Your task to perform on an android device: toggle improve location accuracy Image 0: 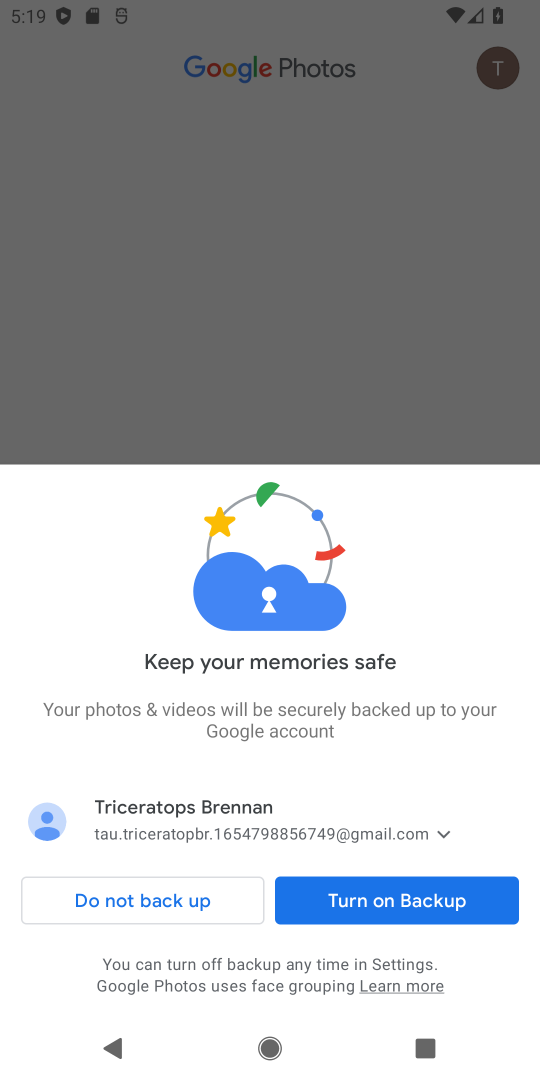
Step 0: press home button
Your task to perform on an android device: toggle improve location accuracy Image 1: 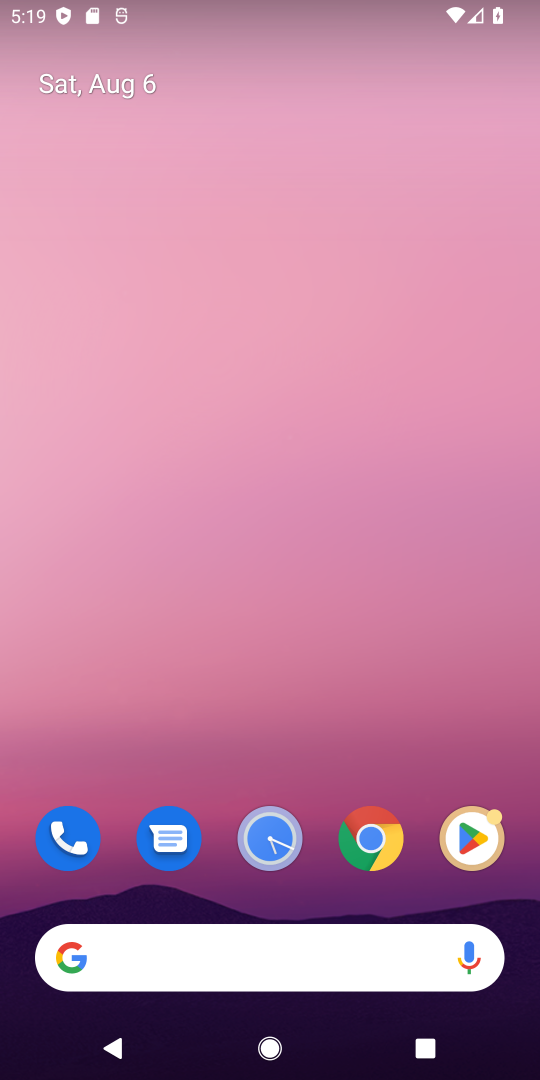
Step 1: drag from (219, 871) to (176, 49)
Your task to perform on an android device: toggle improve location accuracy Image 2: 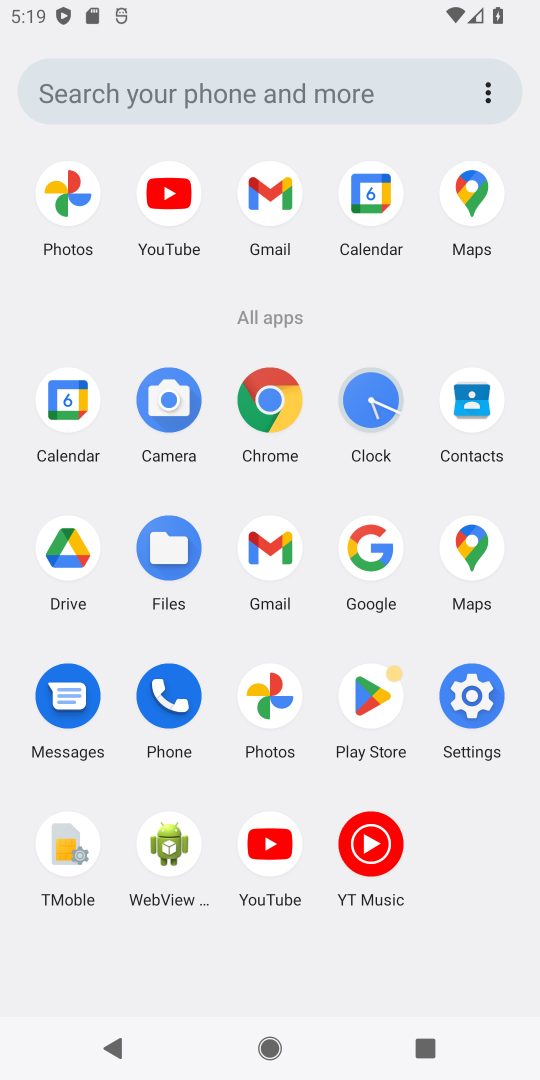
Step 2: click (474, 718)
Your task to perform on an android device: toggle improve location accuracy Image 3: 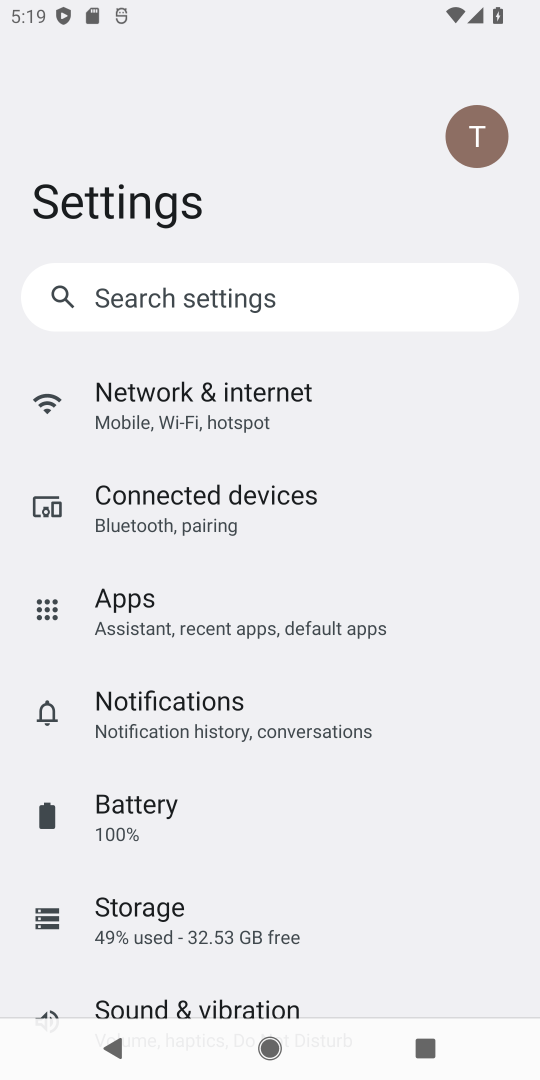
Step 3: drag from (208, 868) to (268, 517)
Your task to perform on an android device: toggle improve location accuracy Image 4: 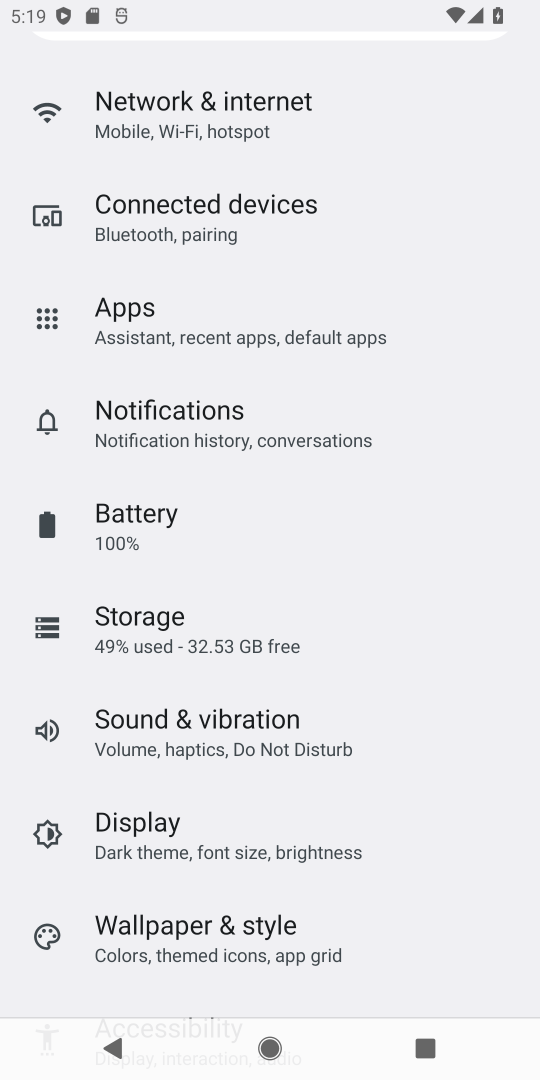
Step 4: drag from (211, 812) to (266, 374)
Your task to perform on an android device: toggle improve location accuracy Image 5: 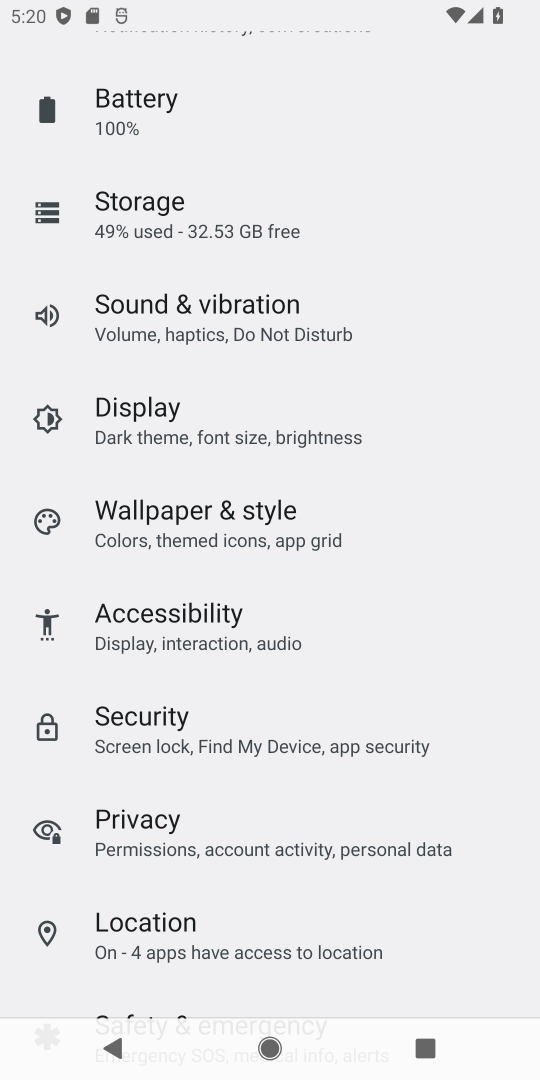
Step 5: click (142, 930)
Your task to perform on an android device: toggle improve location accuracy Image 6: 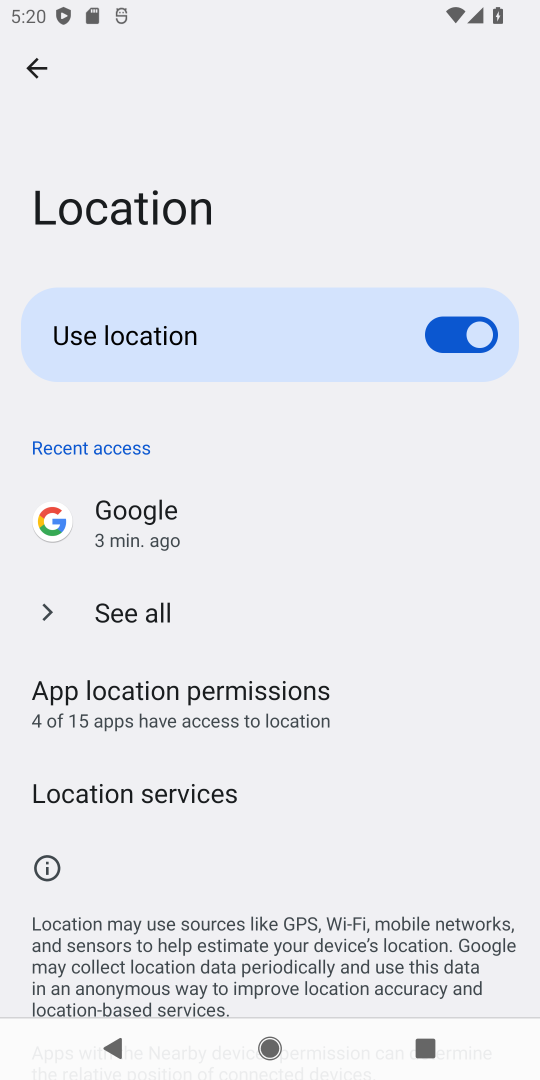
Step 6: click (158, 798)
Your task to perform on an android device: toggle improve location accuracy Image 7: 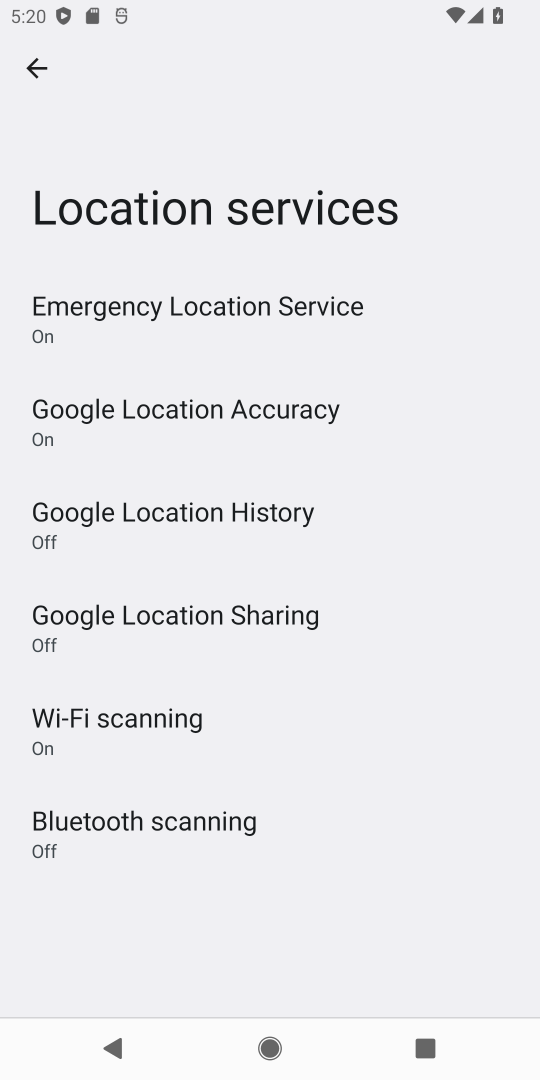
Step 7: click (206, 423)
Your task to perform on an android device: toggle improve location accuracy Image 8: 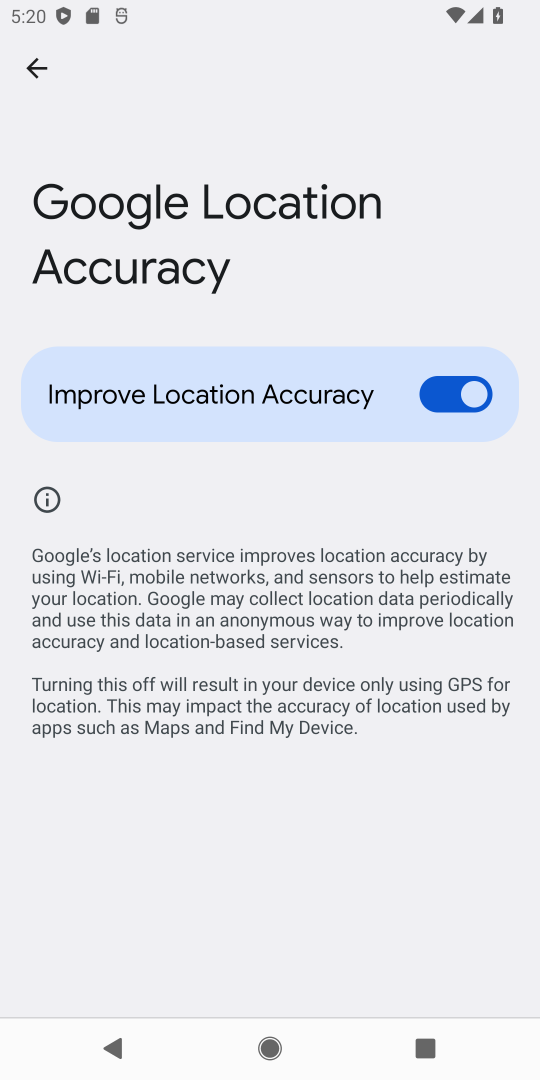
Step 8: click (380, 391)
Your task to perform on an android device: toggle improve location accuracy Image 9: 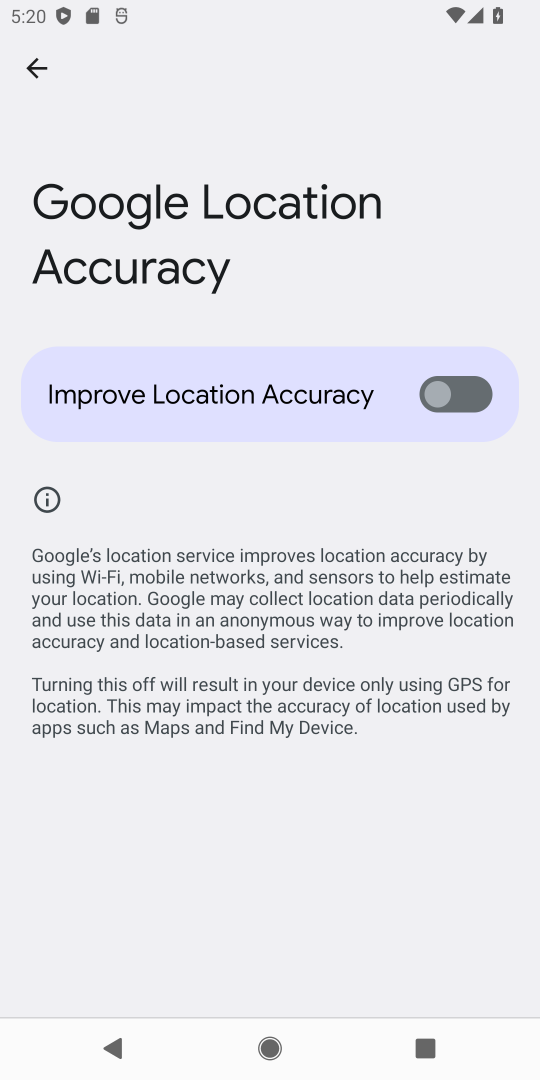
Step 9: task complete